Your task to perform on an android device: Open calendar and show me the fourth week of next month Image 0: 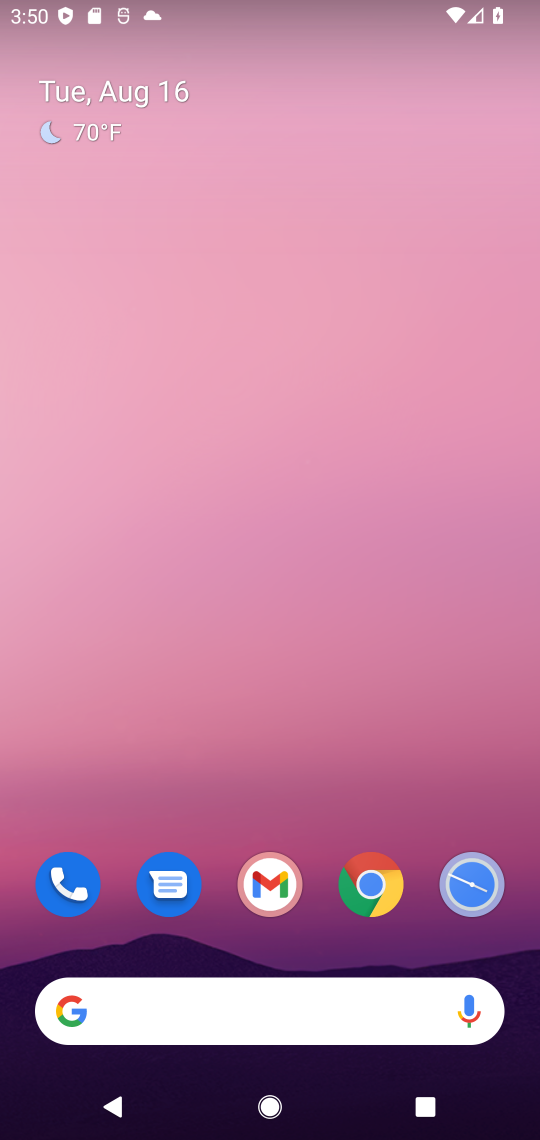
Step 0: drag from (268, 590) to (245, 117)
Your task to perform on an android device: Open calendar and show me the fourth week of next month Image 1: 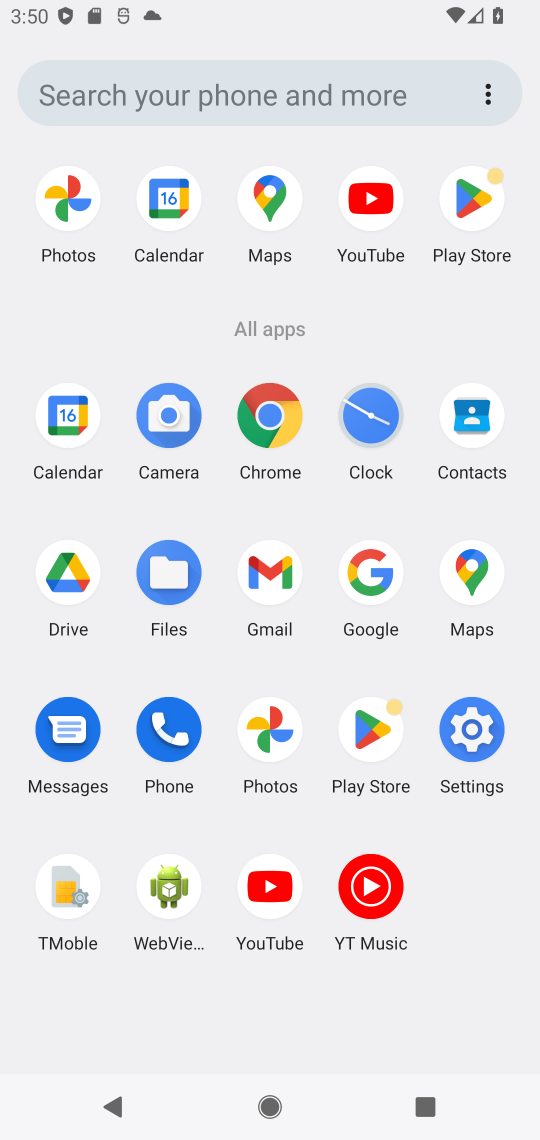
Step 1: click (158, 234)
Your task to perform on an android device: Open calendar and show me the fourth week of next month Image 2: 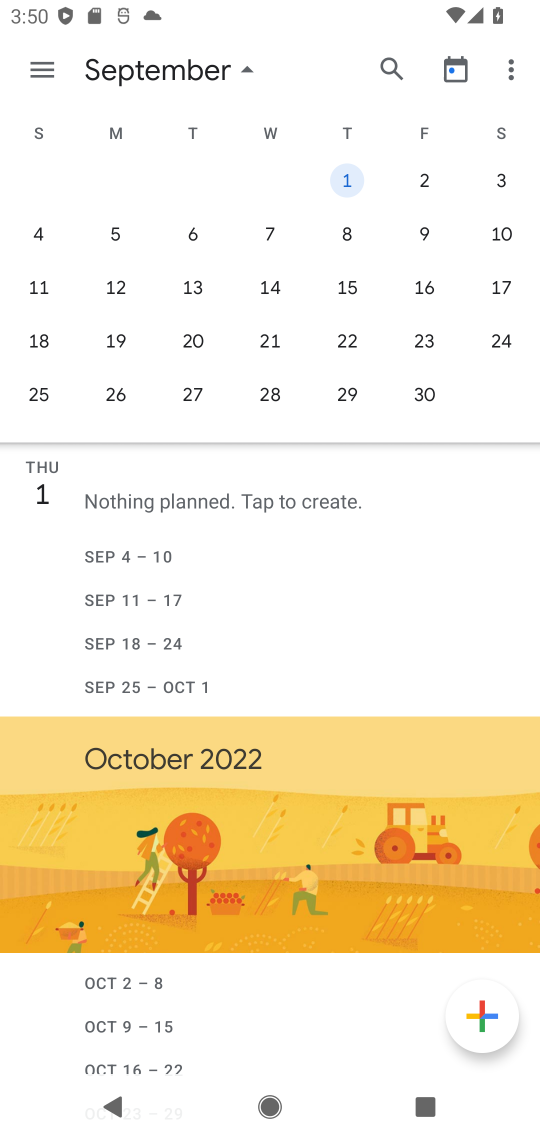
Step 2: click (34, 329)
Your task to perform on an android device: Open calendar and show me the fourth week of next month Image 3: 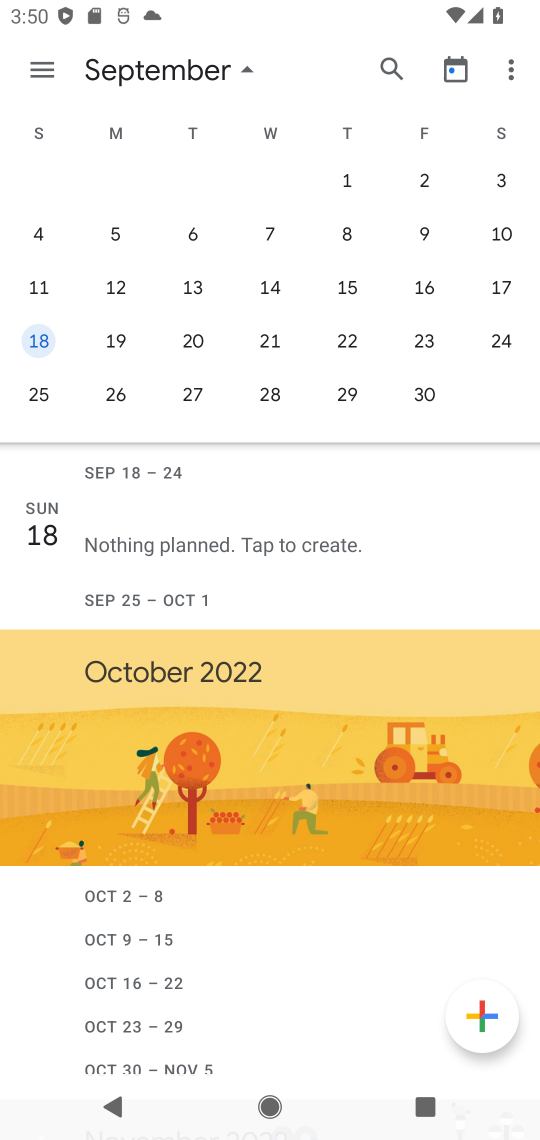
Step 3: click (99, 344)
Your task to perform on an android device: Open calendar and show me the fourth week of next month Image 4: 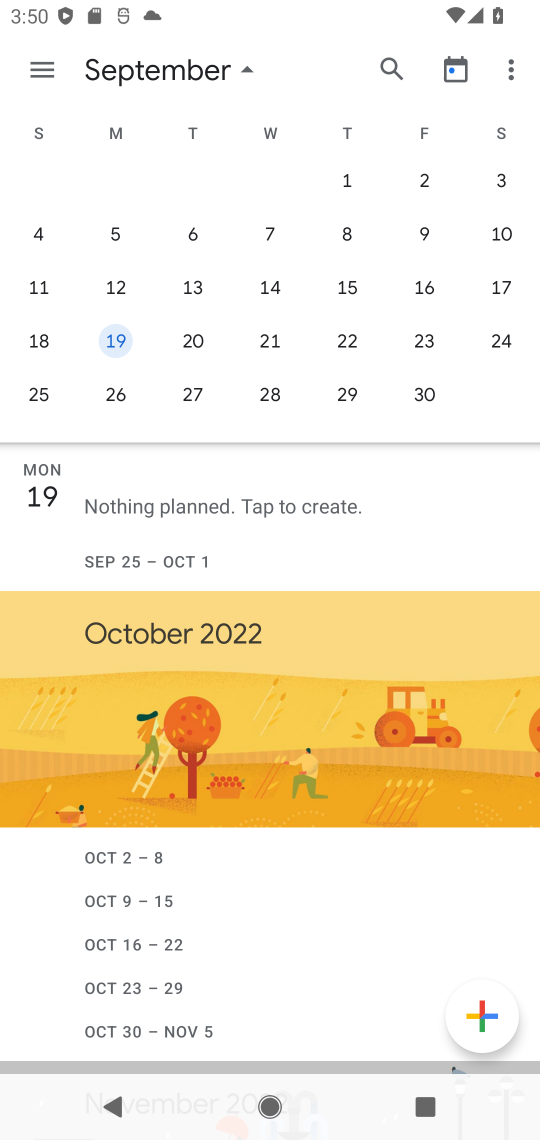
Step 4: task complete